Your task to perform on an android device: clear history in the chrome app Image 0: 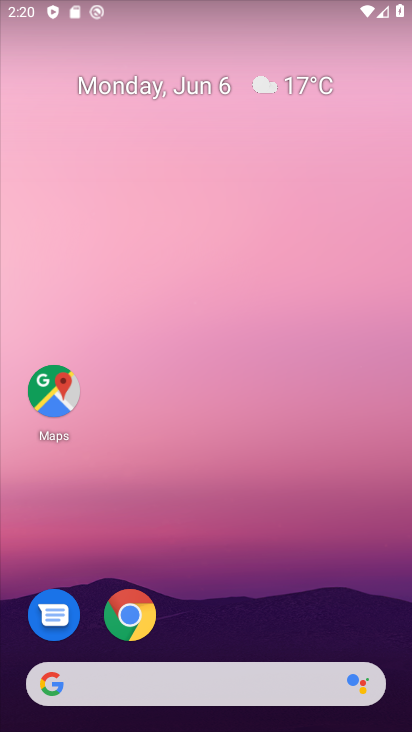
Step 0: drag from (247, 637) to (306, 229)
Your task to perform on an android device: clear history in the chrome app Image 1: 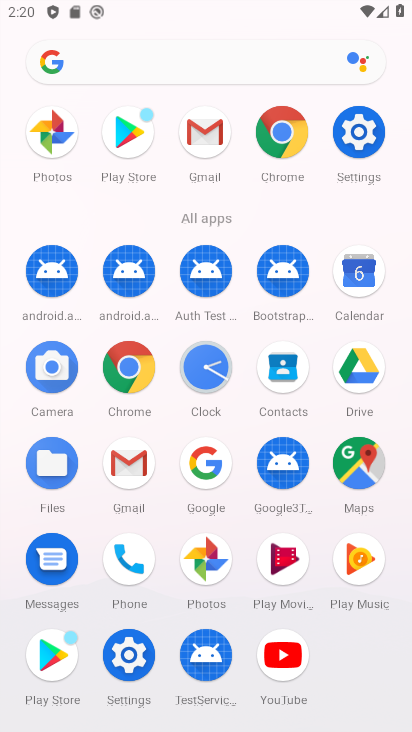
Step 1: click (136, 375)
Your task to perform on an android device: clear history in the chrome app Image 2: 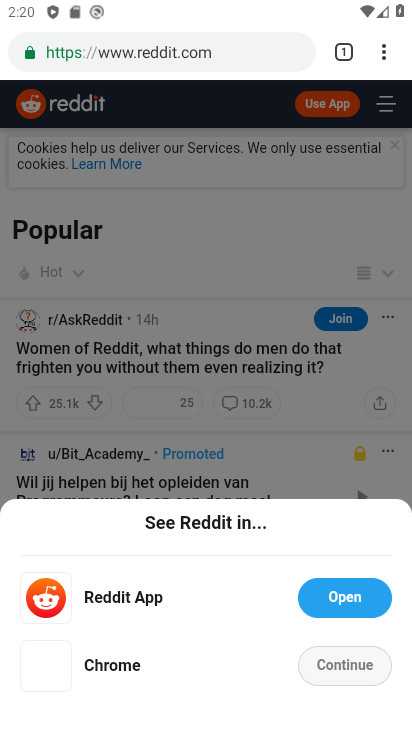
Step 2: click (385, 50)
Your task to perform on an android device: clear history in the chrome app Image 3: 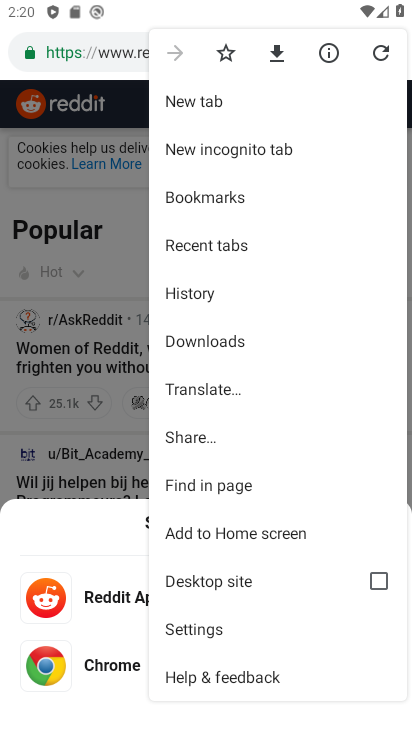
Step 3: click (198, 294)
Your task to perform on an android device: clear history in the chrome app Image 4: 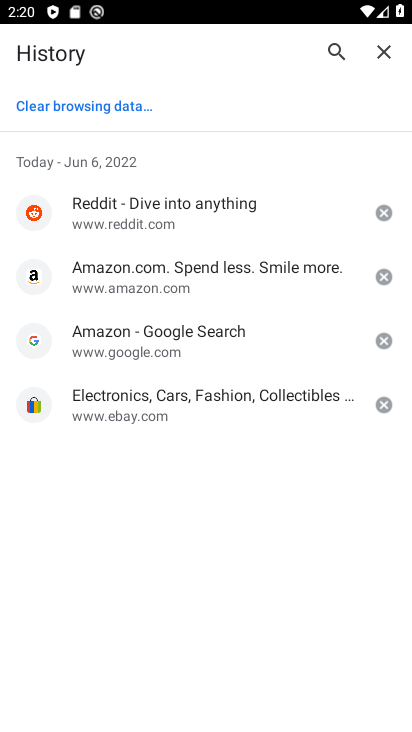
Step 4: click (102, 106)
Your task to perform on an android device: clear history in the chrome app Image 5: 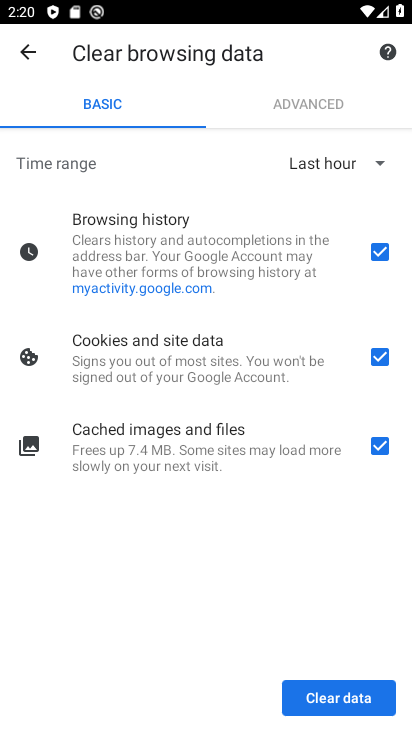
Step 5: click (377, 351)
Your task to perform on an android device: clear history in the chrome app Image 6: 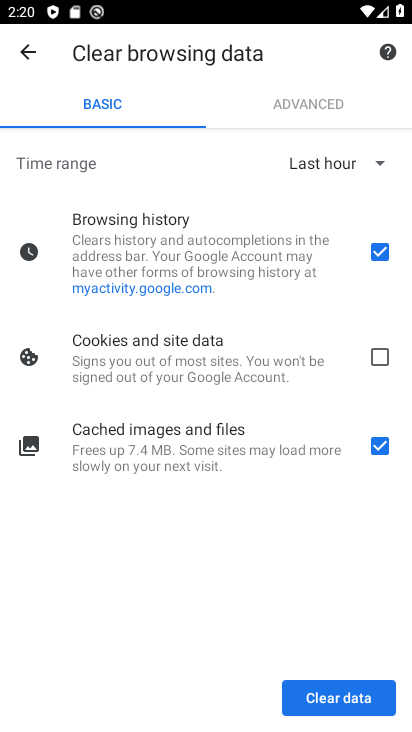
Step 6: click (368, 451)
Your task to perform on an android device: clear history in the chrome app Image 7: 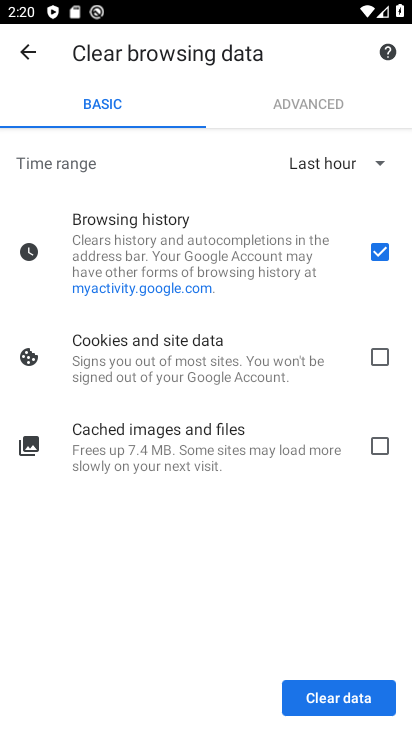
Step 7: click (355, 689)
Your task to perform on an android device: clear history in the chrome app Image 8: 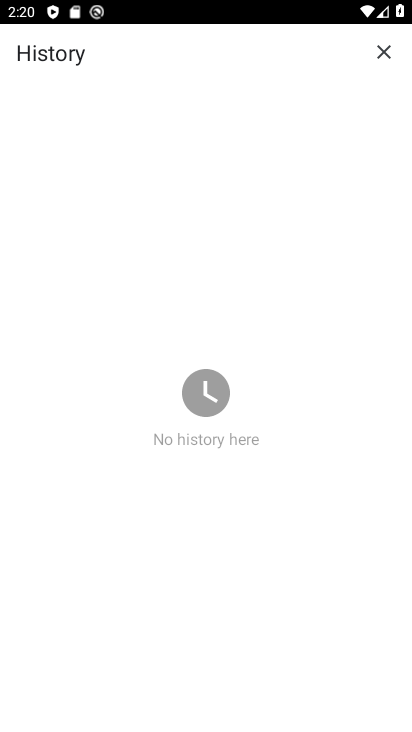
Step 8: task complete